Your task to perform on an android device: Open Google Image 0: 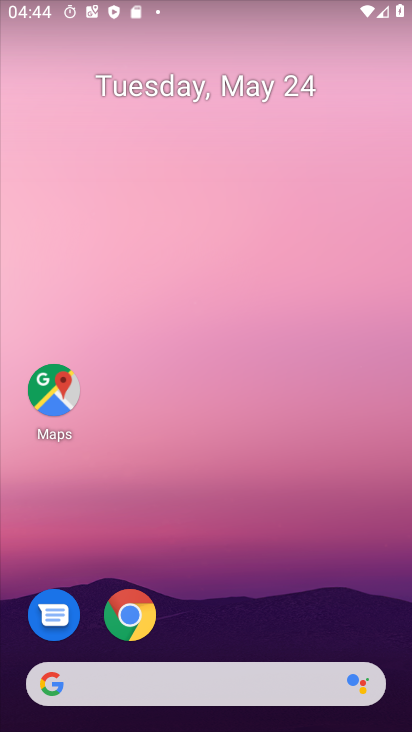
Step 0: drag from (220, 590) to (283, 15)
Your task to perform on an android device: Open Google Image 1: 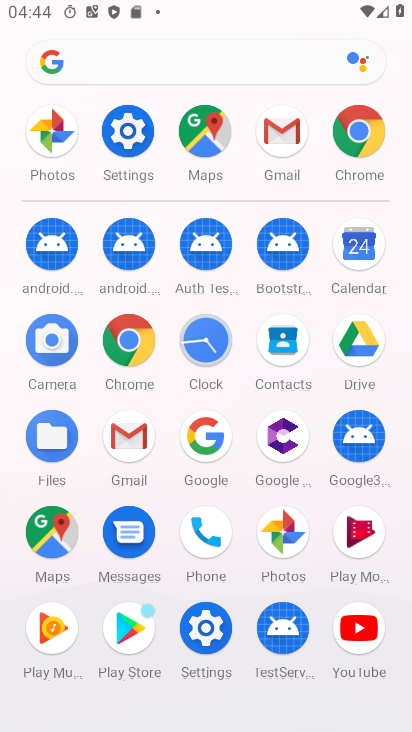
Step 1: click (232, 409)
Your task to perform on an android device: Open Google Image 2: 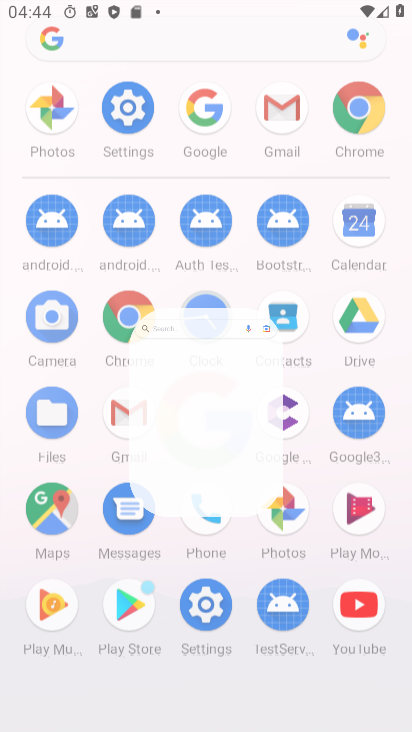
Step 2: click (207, 438)
Your task to perform on an android device: Open Google Image 3: 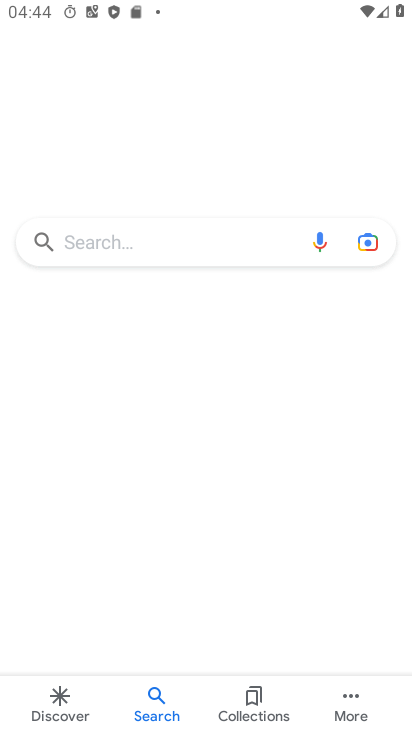
Step 3: task complete